Your task to perform on an android device: Go to Google Image 0: 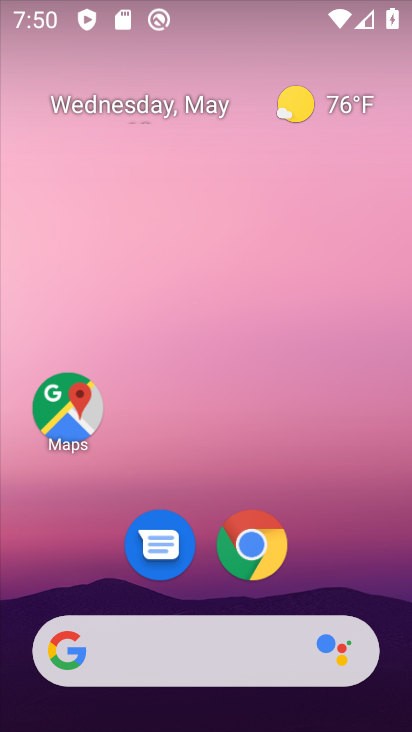
Step 0: drag from (339, 583) to (176, 15)
Your task to perform on an android device: Go to Google Image 1: 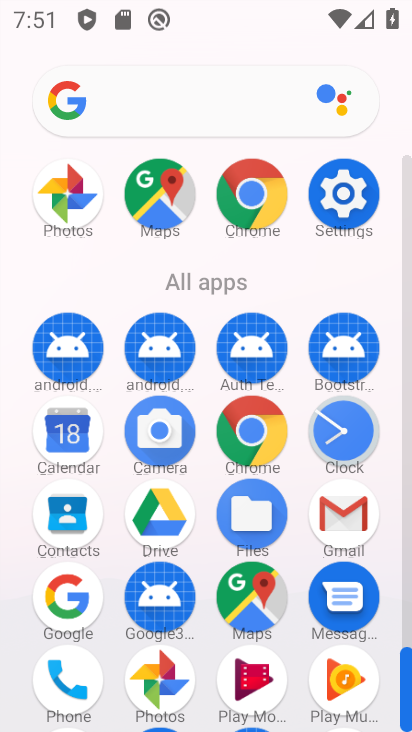
Step 1: click (67, 592)
Your task to perform on an android device: Go to Google Image 2: 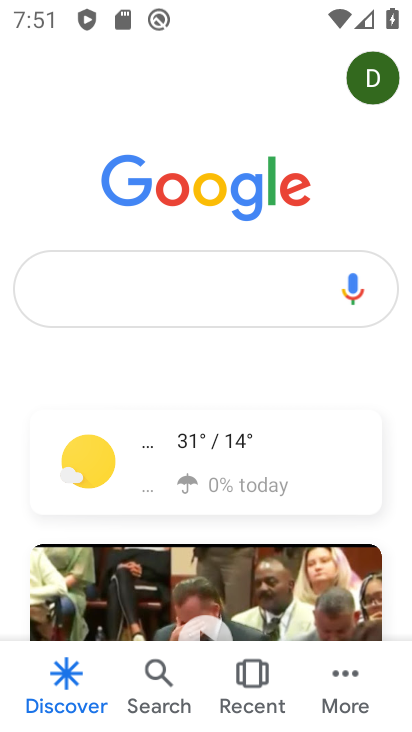
Step 2: task complete